Your task to perform on an android device: turn on the 24-hour format for clock Image 0: 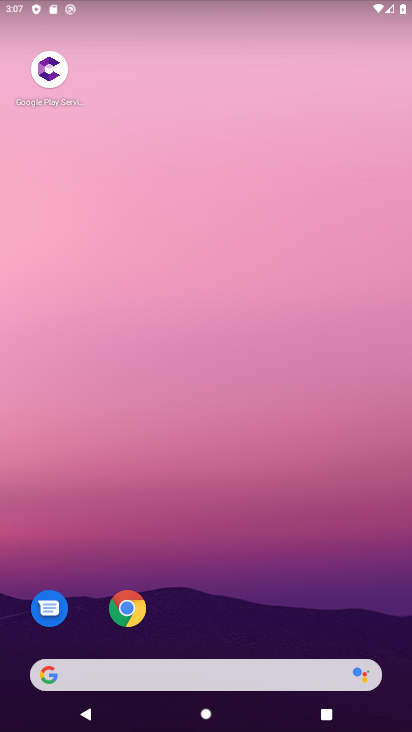
Step 0: drag from (171, 666) to (147, 4)
Your task to perform on an android device: turn on the 24-hour format for clock Image 1: 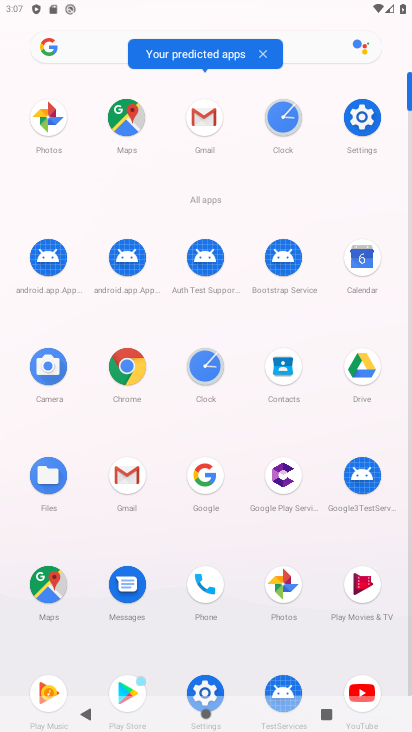
Step 1: click (372, 134)
Your task to perform on an android device: turn on the 24-hour format for clock Image 2: 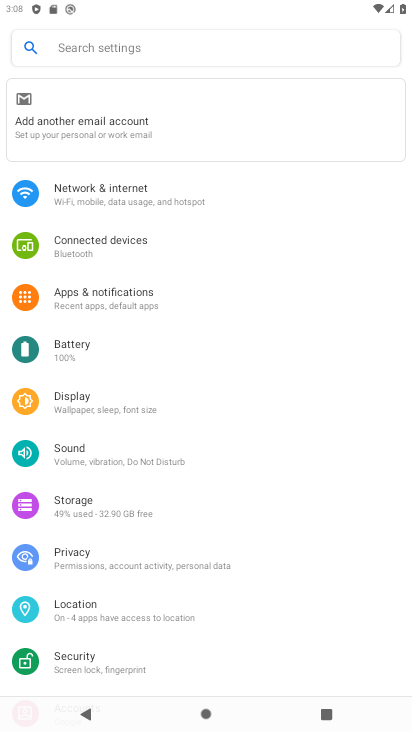
Step 2: drag from (185, 572) to (182, 34)
Your task to perform on an android device: turn on the 24-hour format for clock Image 3: 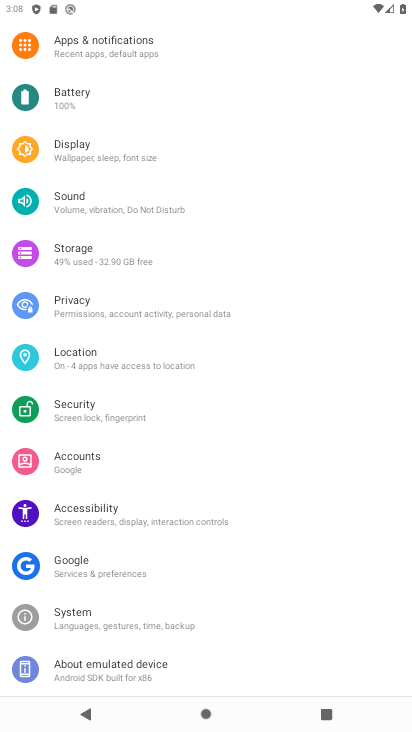
Step 3: click (123, 628)
Your task to perform on an android device: turn on the 24-hour format for clock Image 4: 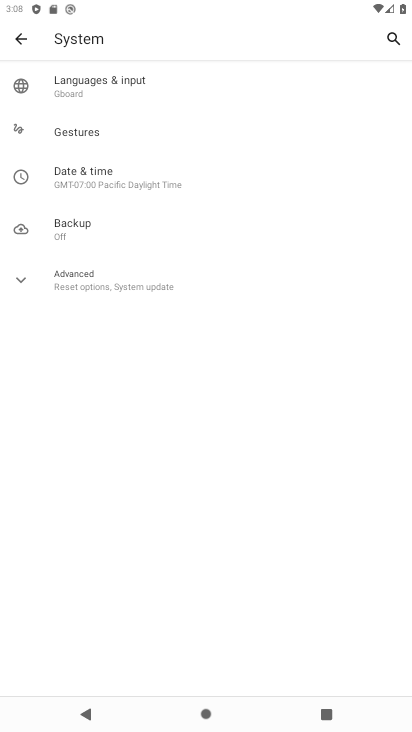
Step 4: click (132, 179)
Your task to perform on an android device: turn on the 24-hour format for clock Image 5: 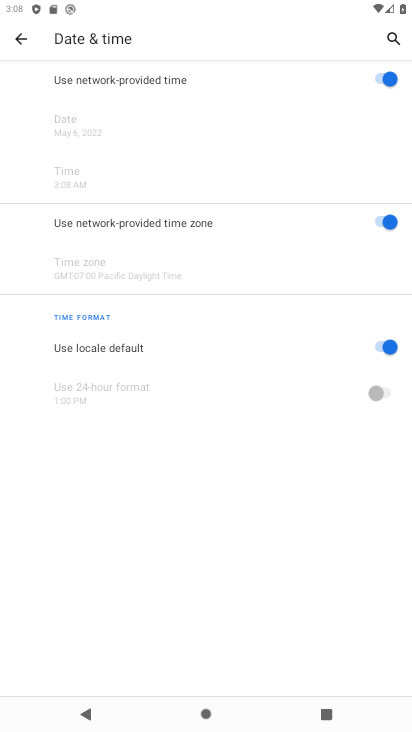
Step 5: click (389, 348)
Your task to perform on an android device: turn on the 24-hour format for clock Image 6: 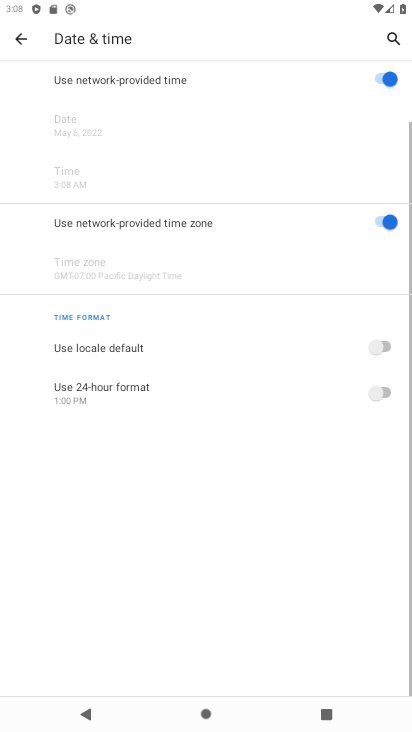
Step 6: click (383, 394)
Your task to perform on an android device: turn on the 24-hour format for clock Image 7: 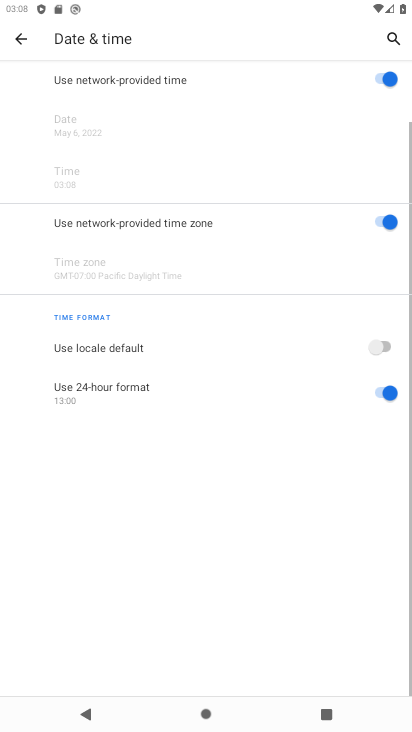
Step 7: task complete